Your task to perform on an android device: open app "Upside-Cash back on gas & food" Image 0: 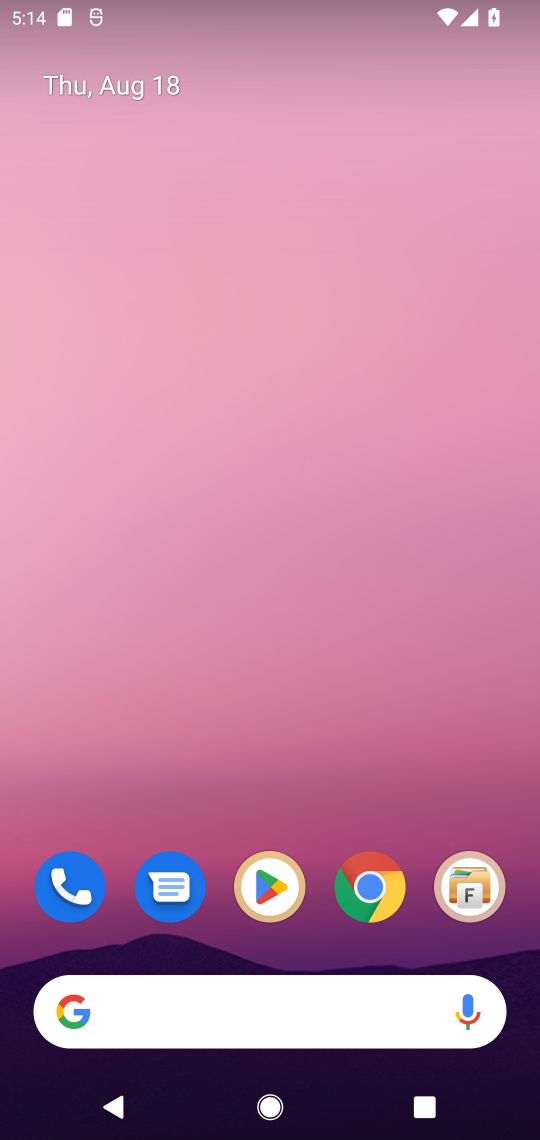
Step 0: click (281, 882)
Your task to perform on an android device: open app "Upside-Cash back on gas & food" Image 1: 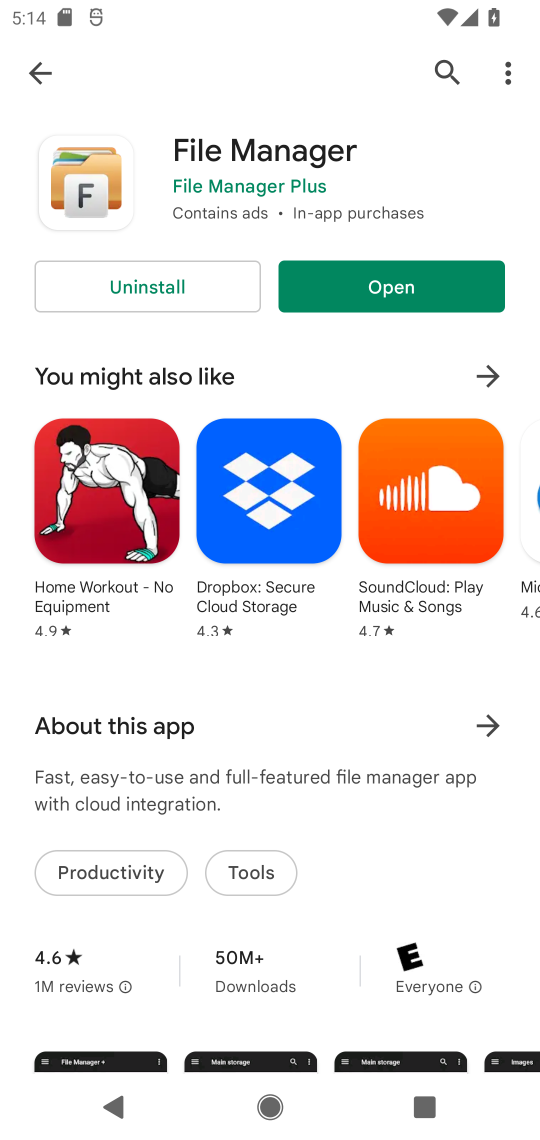
Step 1: click (441, 65)
Your task to perform on an android device: open app "Upside-Cash back on gas & food" Image 2: 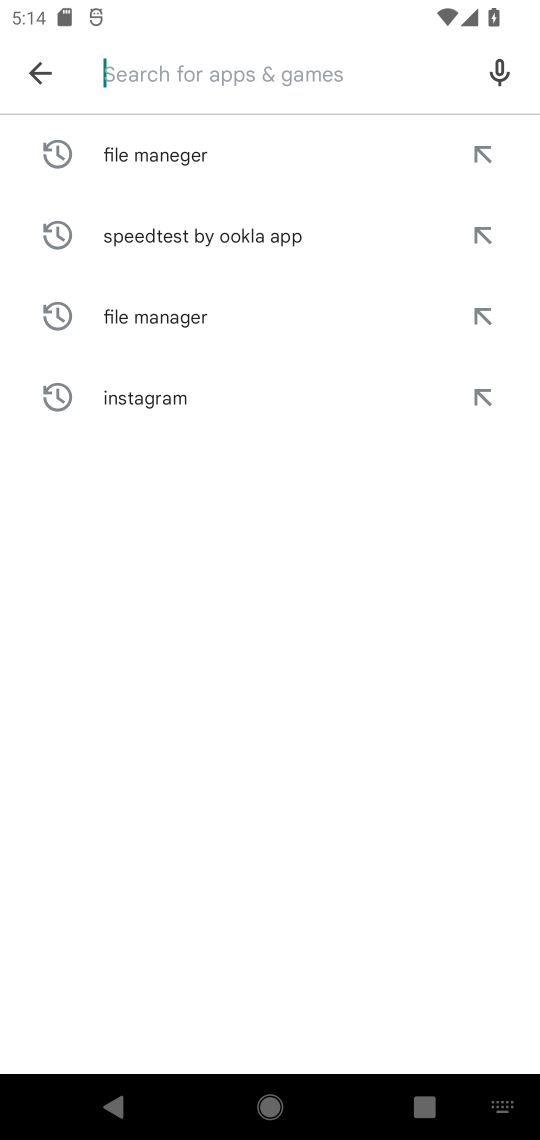
Step 2: type "Upside-Cash back on gas & food"
Your task to perform on an android device: open app "Upside-Cash back on gas & food" Image 3: 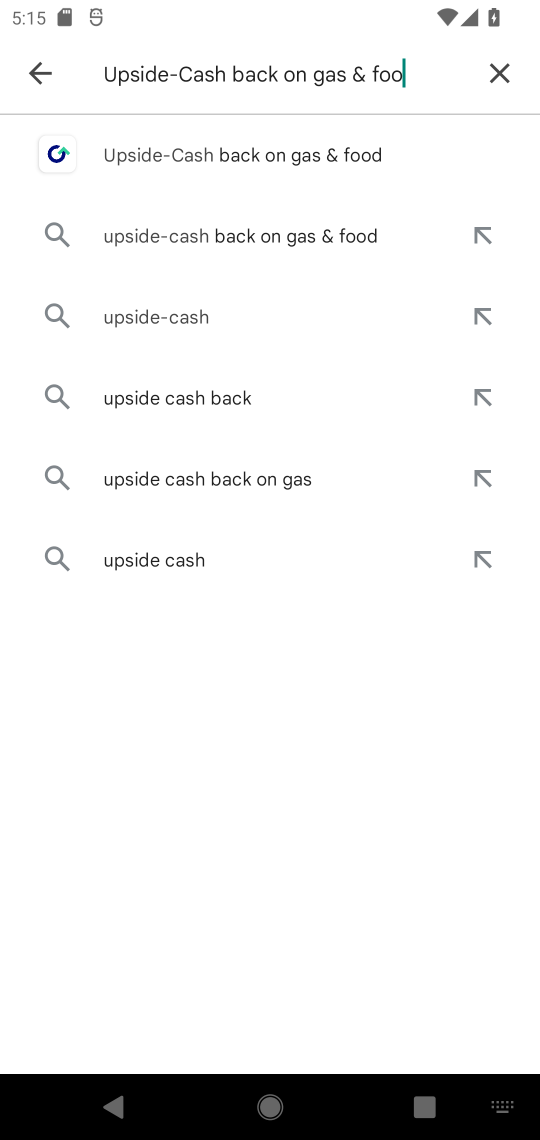
Step 3: type ""
Your task to perform on an android device: open app "Upside-Cash back on gas & food" Image 4: 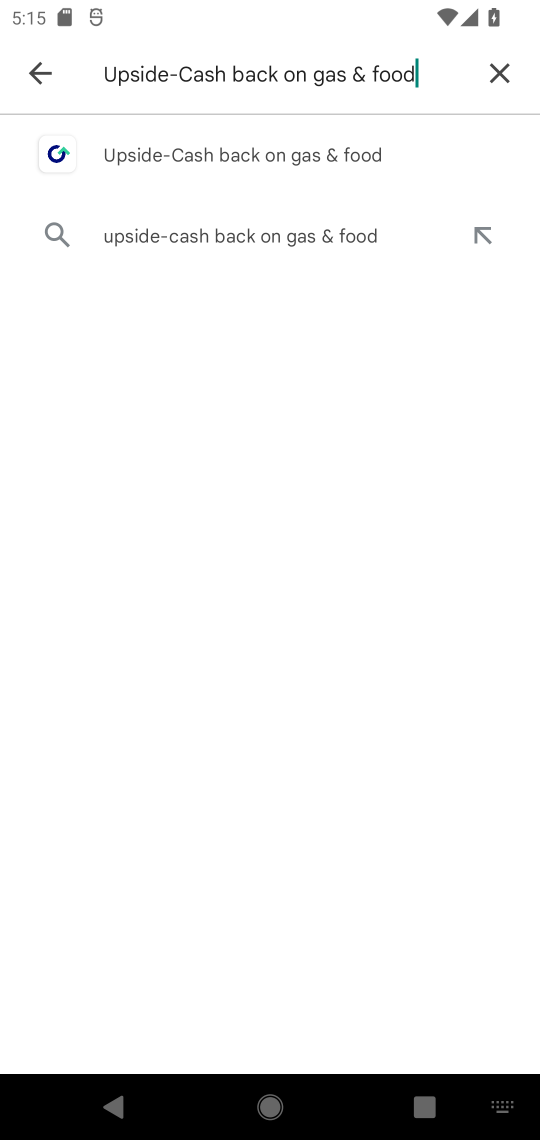
Step 4: click (259, 151)
Your task to perform on an android device: open app "Upside-Cash back on gas & food" Image 5: 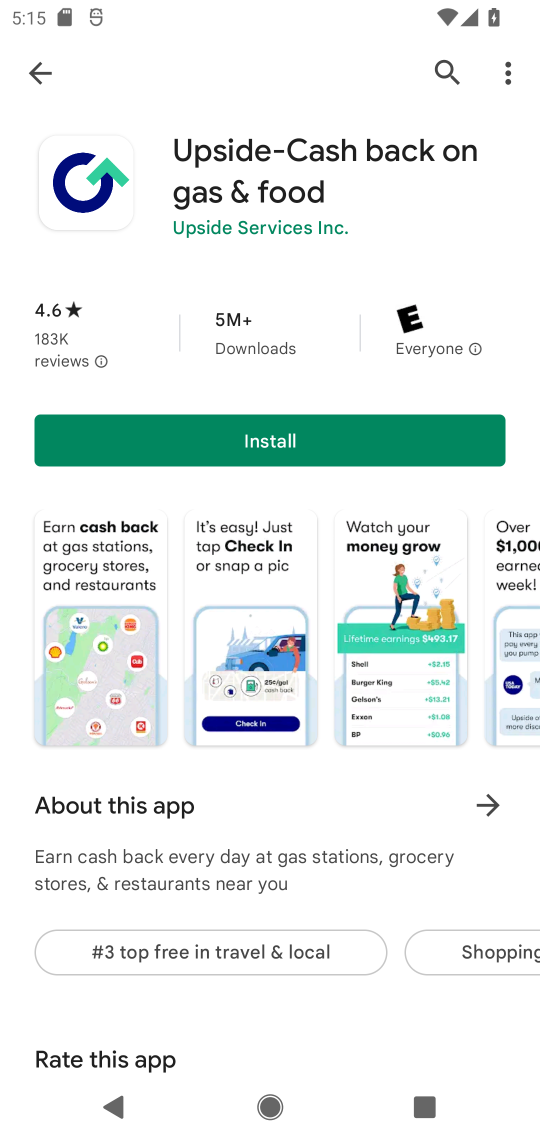
Step 5: task complete